Your task to perform on an android device: Go to Android settings Image 0: 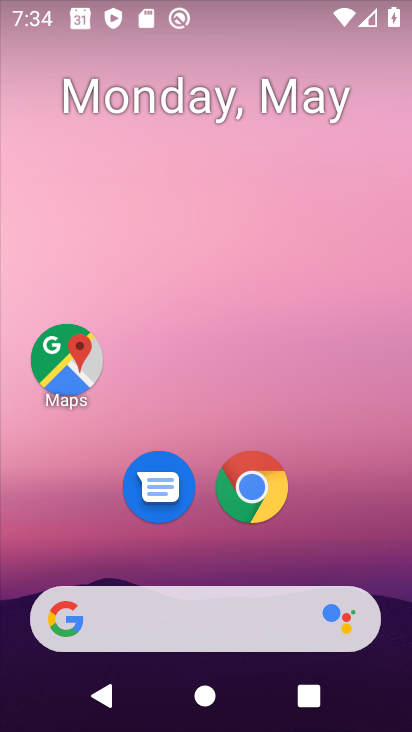
Step 0: drag from (236, 648) to (179, 10)
Your task to perform on an android device: Go to Android settings Image 1: 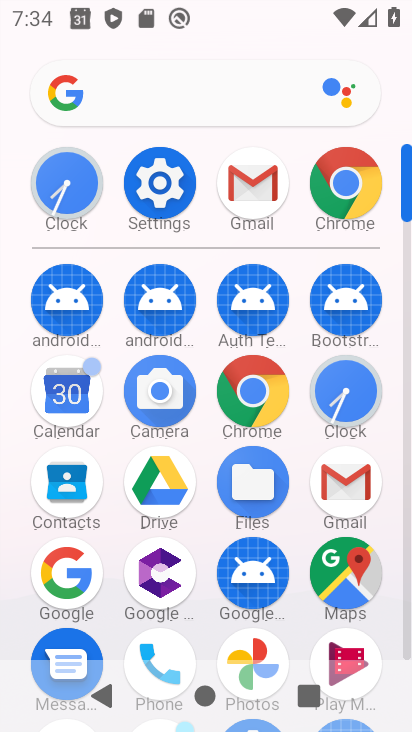
Step 1: click (163, 159)
Your task to perform on an android device: Go to Android settings Image 2: 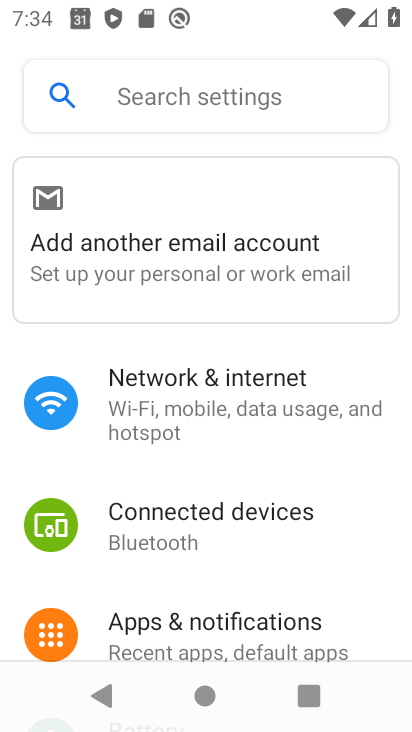
Step 2: click (165, 98)
Your task to perform on an android device: Go to Android settings Image 3: 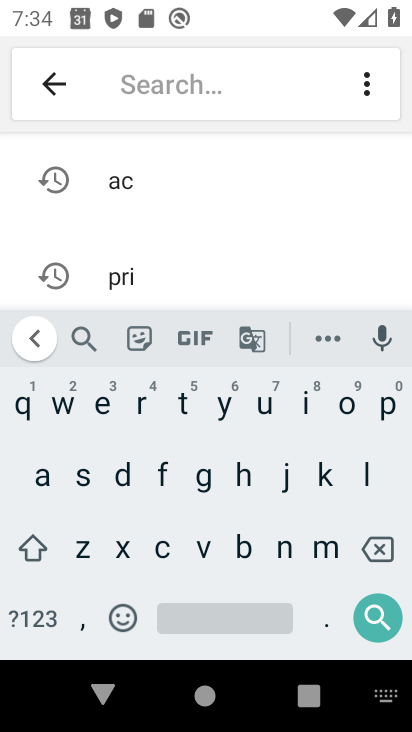
Step 3: click (34, 472)
Your task to perform on an android device: Go to Android settings Image 4: 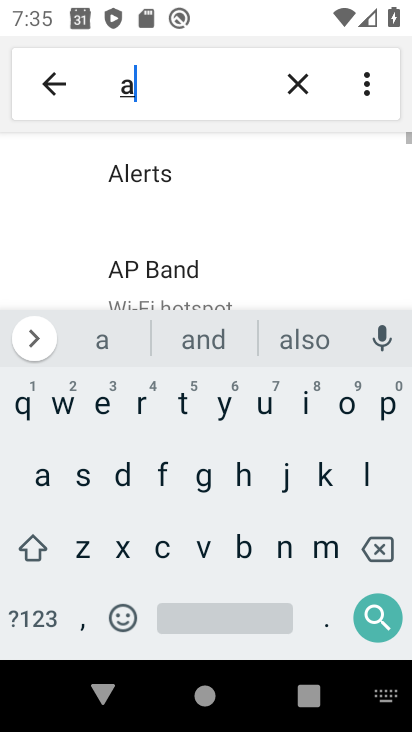
Step 4: click (276, 540)
Your task to perform on an android device: Go to Android settings Image 5: 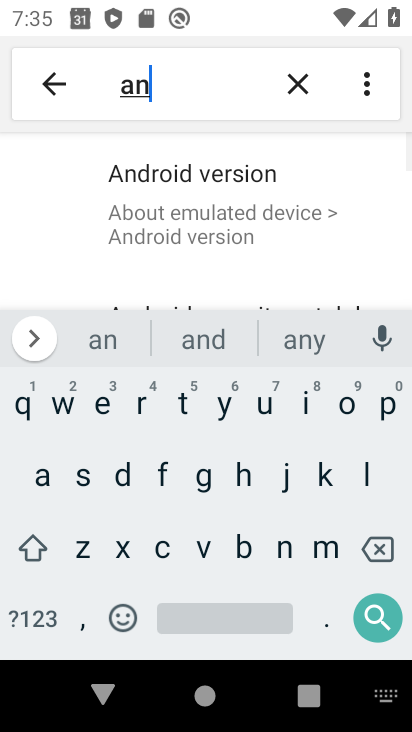
Step 5: click (203, 172)
Your task to perform on an android device: Go to Android settings Image 6: 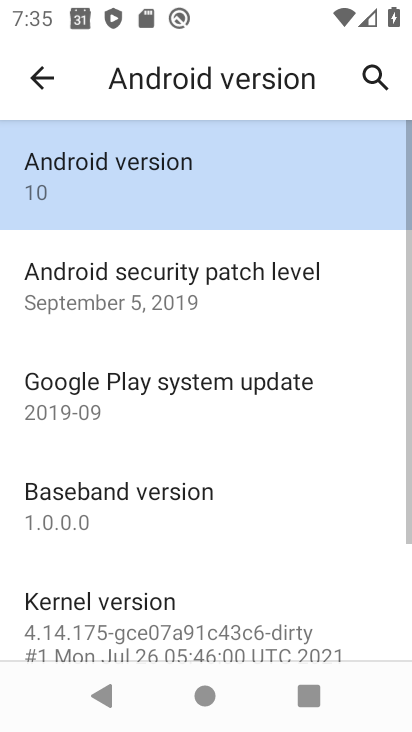
Step 6: click (158, 190)
Your task to perform on an android device: Go to Android settings Image 7: 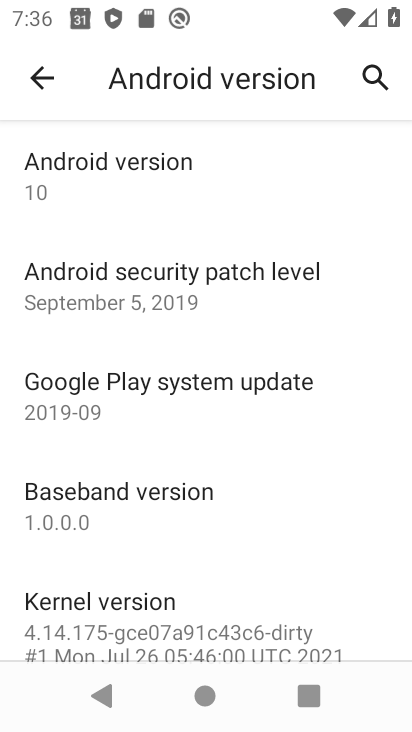
Step 7: task complete